Your task to perform on an android device: add a contact Image 0: 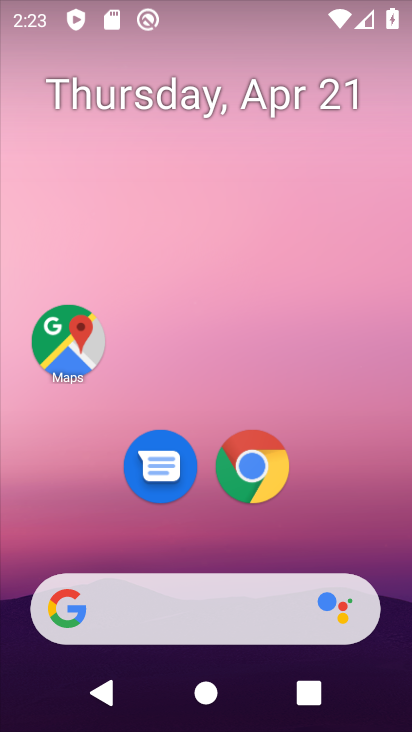
Step 0: drag from (73, 577) to (222, 145)
Your task to perform on an android device: add a contact Image 1: 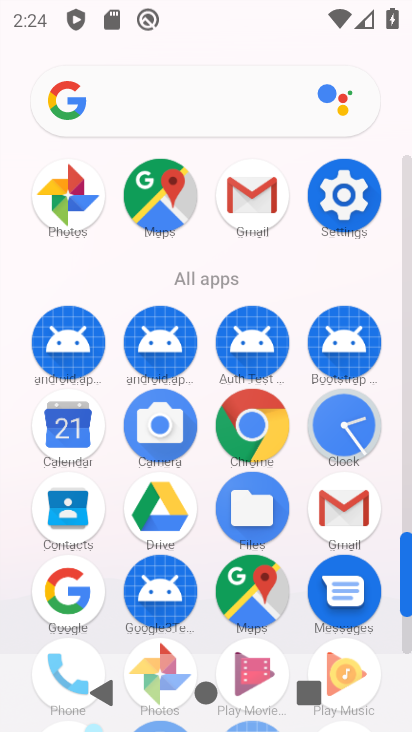
Step 1: drag from (120, 588) to (190, 327)
Your task to perform on an android device: add a contact Image 2: 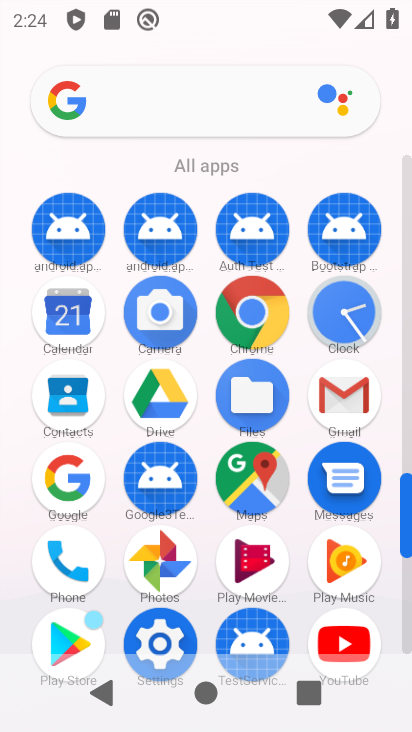
Step 2: click (64, 409)
Your task to perform on an android device: add a contact Image 3: 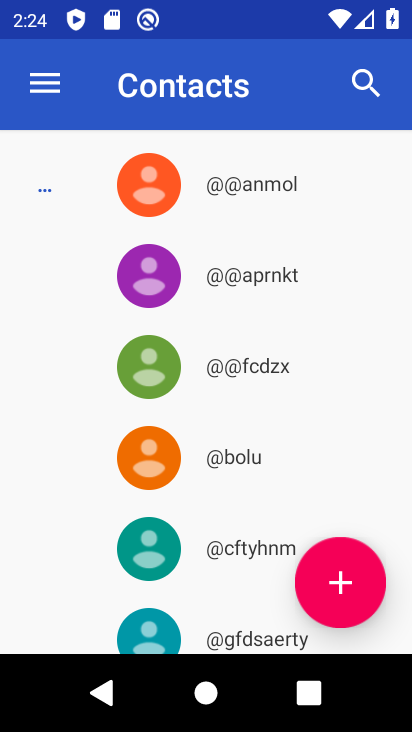
Step 3: click (344, 596)
Your task to perform on an android device: add a contact Image 4: 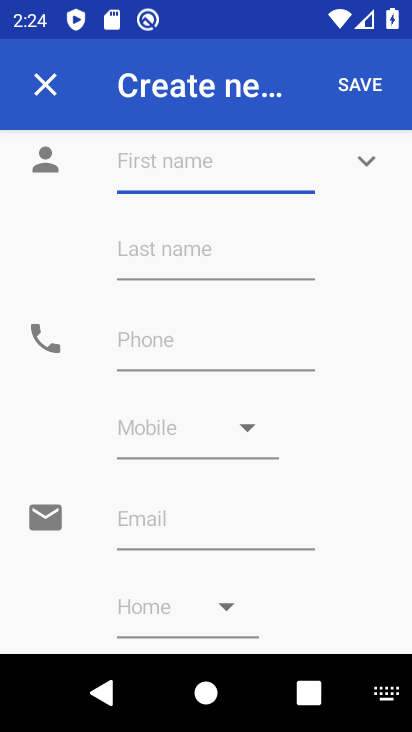
Step 4: type "amber "
Your task to perform on an android device: add a contact Image 5: 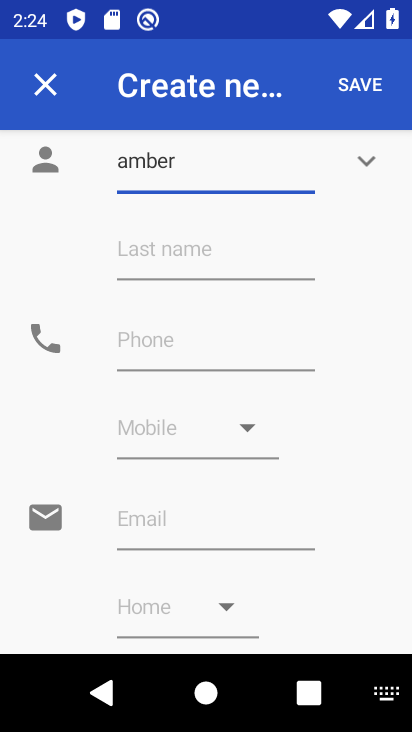
Step 5: click (143, 335)
Your task to perform on an android device: add a contact Image 6: 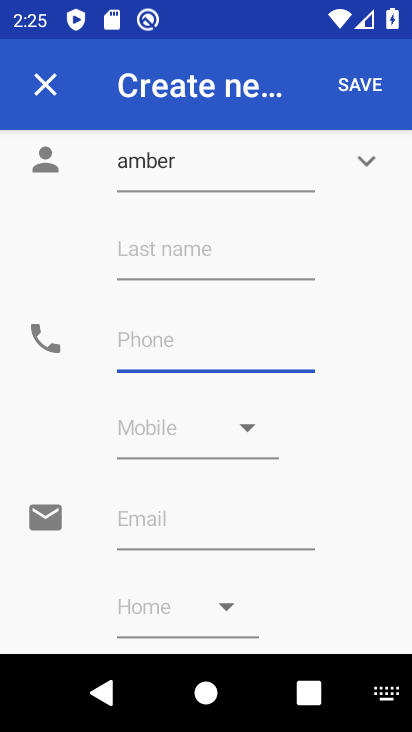
Step 6: type "2321222"
Your task to perform on an android device: add a contact Image 7: 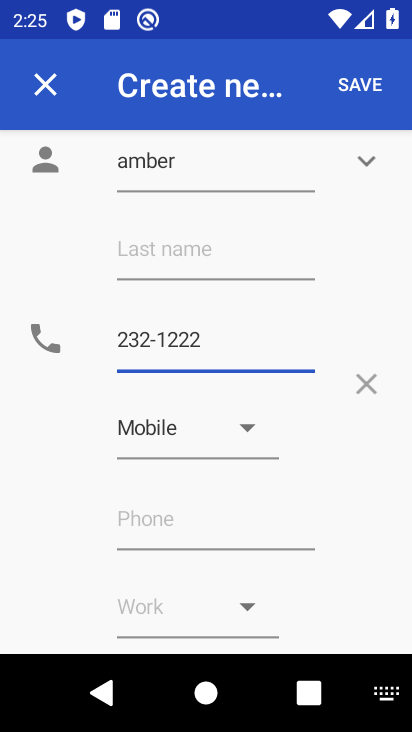
Step 7: click (380, 93)
Your task to perform on an android device: add a contact Image 8: 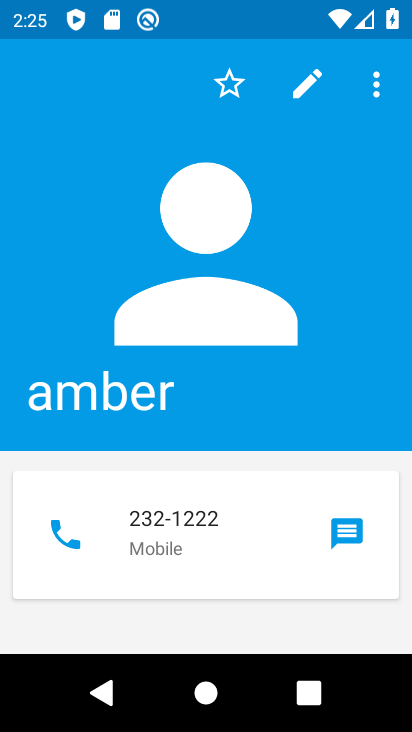
Step 8: task complete